Your task to perform on an android device: Show me recent news Image 0: 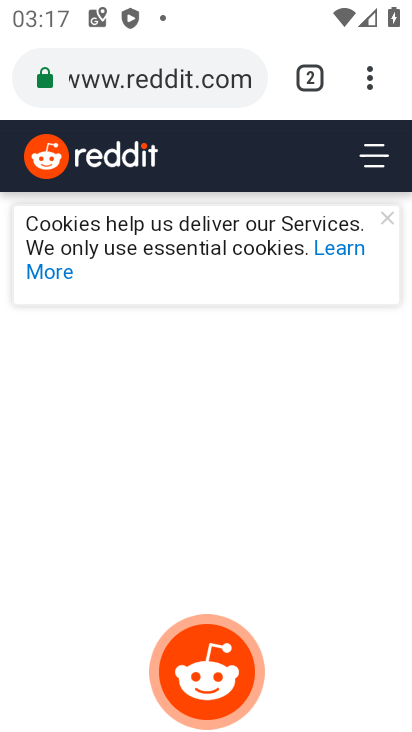
Step 0: press home button
Your task to perform on an android device: Show me recent news Image 1: 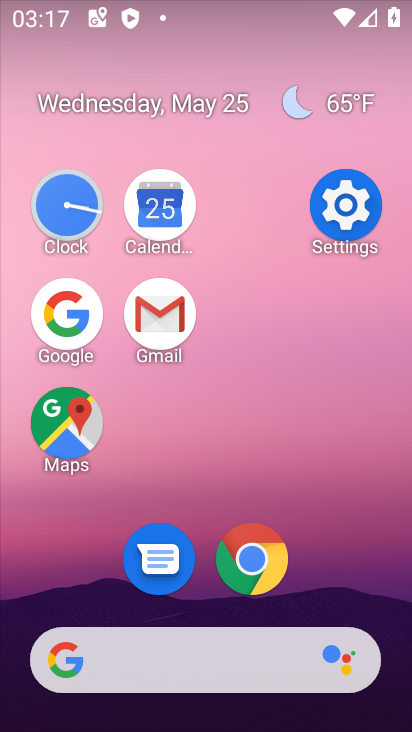
Step 1: click (89, 334)
Your task to perform on an android device: Show me recent news Image 2: 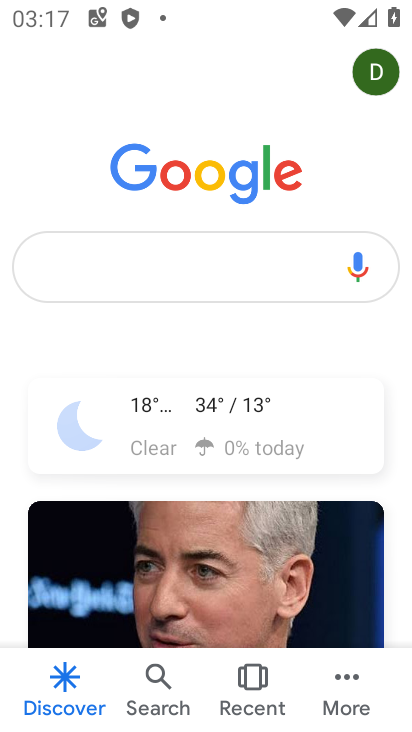
Step 2: click (204, 285)
Your task to perform on an android device: Show me recent news Image 3: 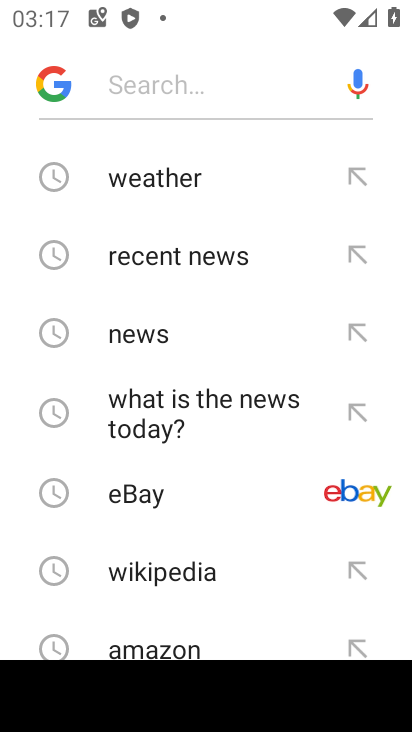
Step 3: click (143, 257)
Your task to perform on an android device: Show me recent news Image 4: 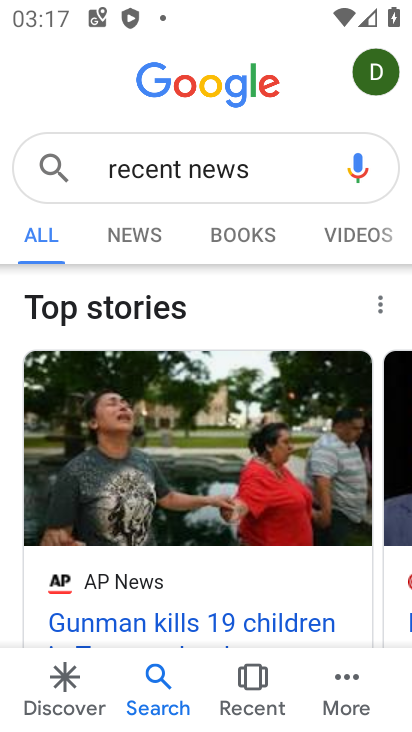
Step 4: task complete